Your task to perform on an android device: Empty the shopping cart on amazon.com. Search for "rayovac triple a" on amazon.com, select the first entry, add it to the cart, then select checkout. Image 0: 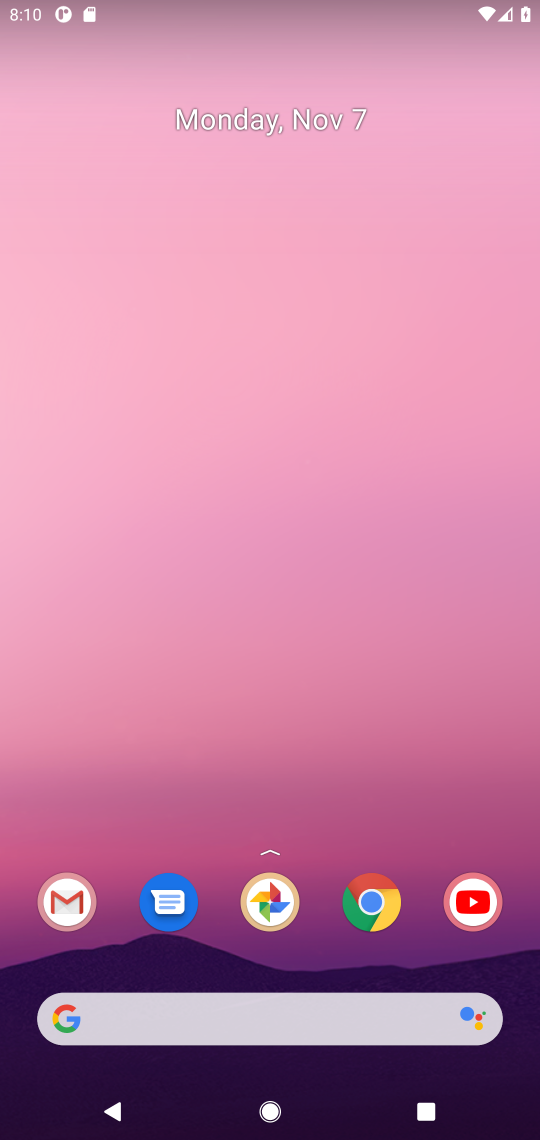
Step 0: click (378, 906)
Your task to perform on an android device: Empty the shopping cart on amazon.com. Search for "rayovac triple a" on amazon.com, select the first entry, add it to the cart, then select checkout. Image 1: 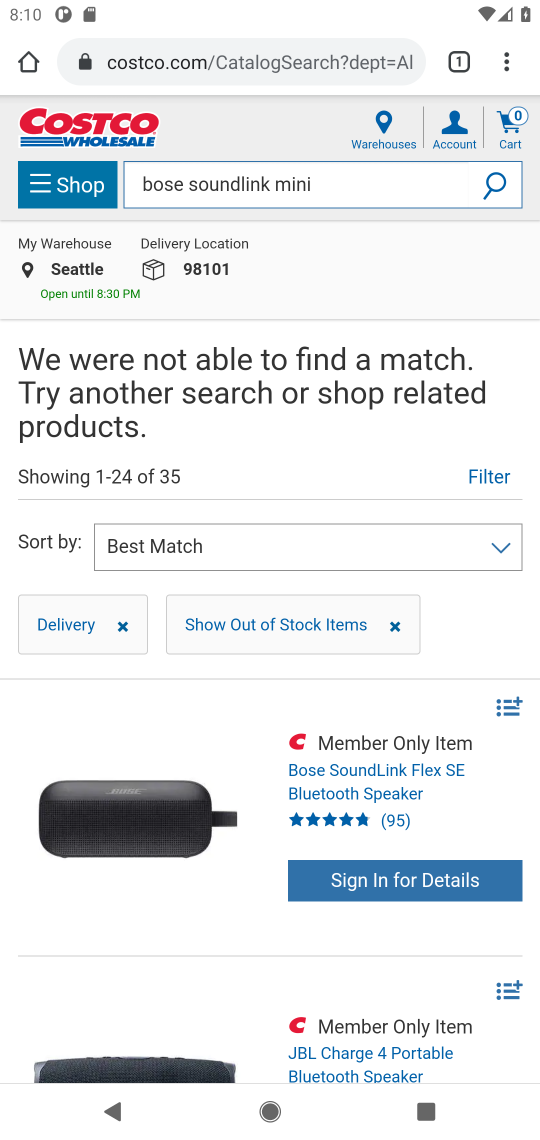
Step 1: click (245, 64)
Your task to perform on an android device: Empty the shopping cart on amazon.com. Search for "rayovac triple a" on amazon.com, select the first entry, add it to the cart, then select checkout. Image 2: 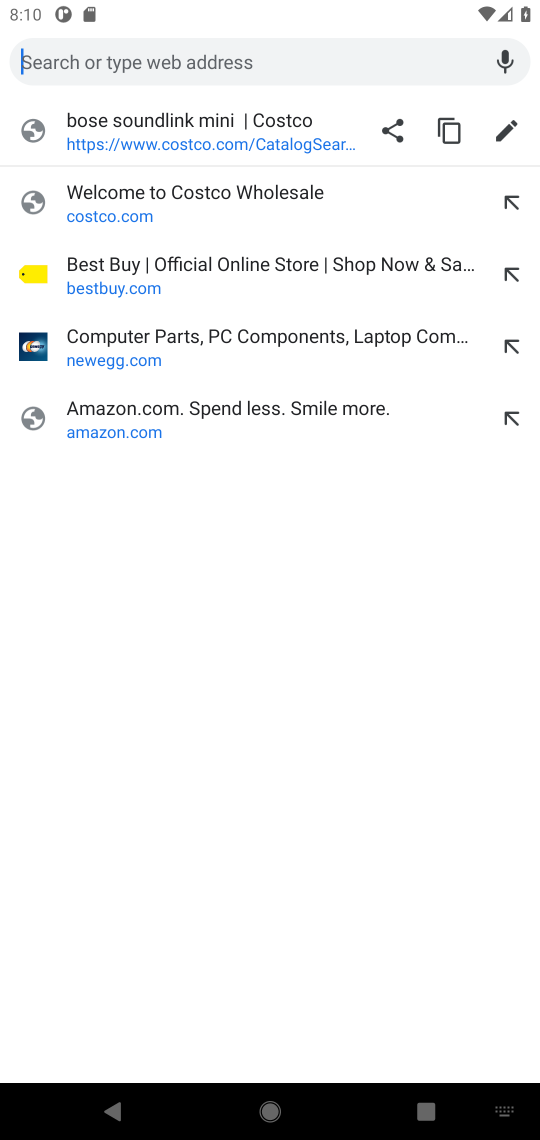
Step 2: click (115, 436)
Your task to perform on an android device: Empty the shopping cart on amazon.com. Search for "rayovac triple a" on amazon.com, select the first entry, add it to the cart, then select checkout. Image 3: 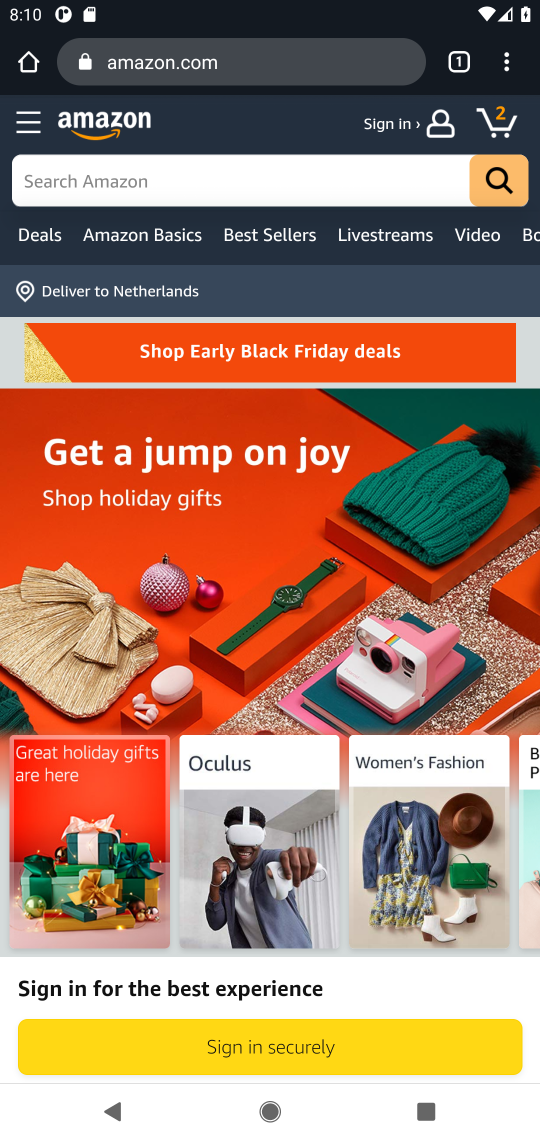
Step 3: click (497, 122)
Your task to perform on an android device: Empty the shopping cart on amazon.com. Search for "rayovac triple a" on amazon.com, select the first entry, add it to the cart, then select checkout. Image 4: 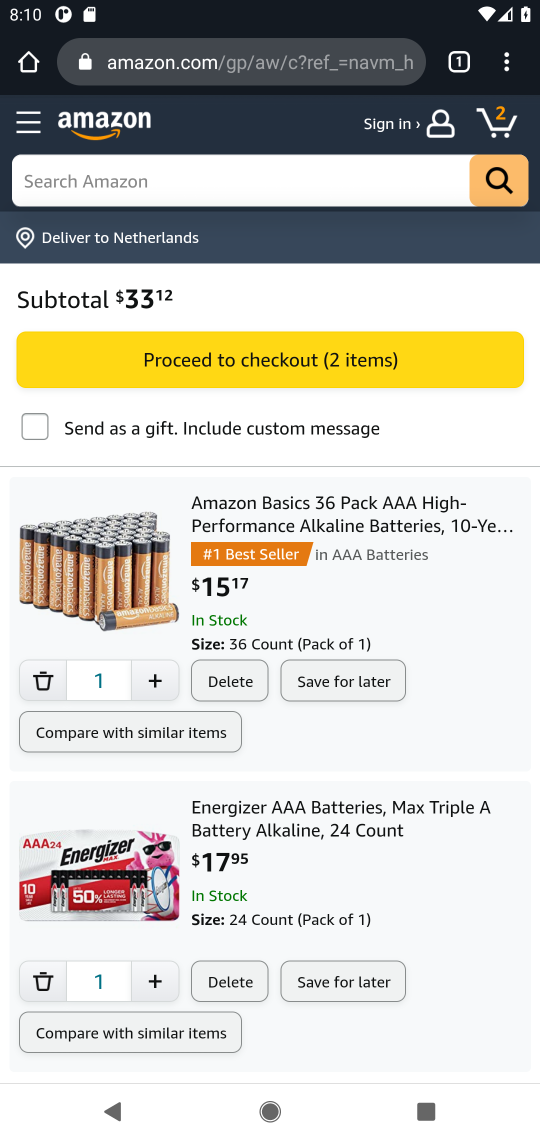
Step 4: click (212, 685)
Your task to perform on an android device: Empty the shopping cart on amazon.com. Search for "rayovac triple a" on amazon.com, select the first entry, add it to the cart, then select checkout. Image 5: 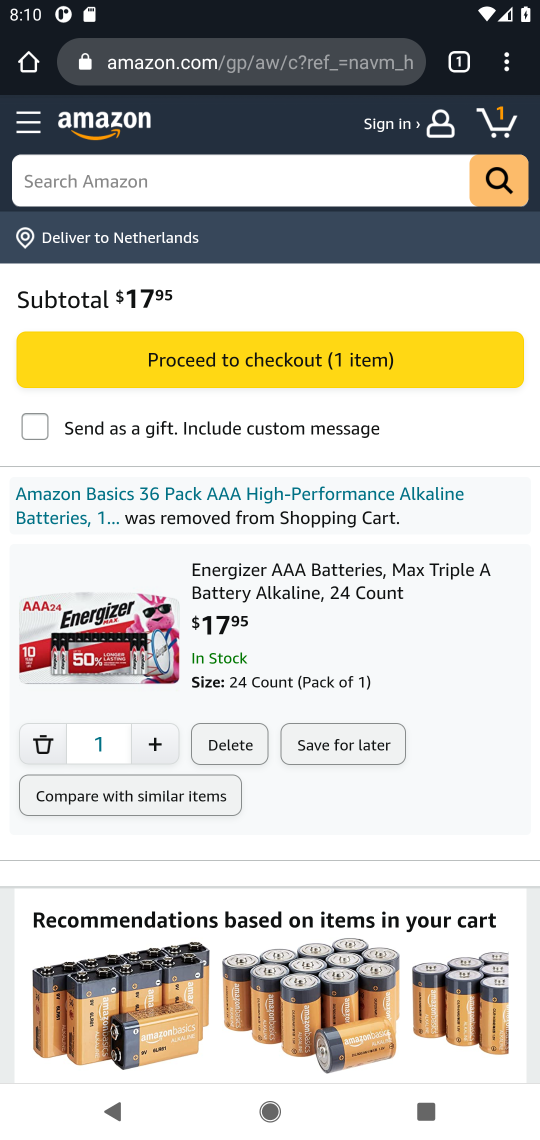
Step 5: click (236, 747)
Your task to perform on an android device: Empty the shopping cart on amazon.com. Search for "rayovac triple a" on amazon.com, select the first entry, add it to the cart, then select checkout. Image 6: 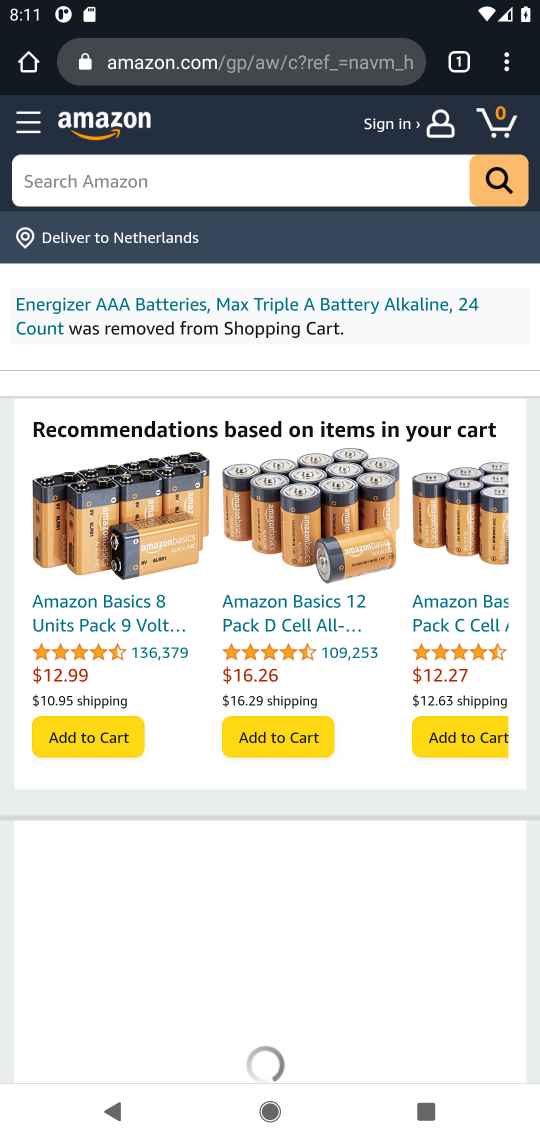
Step 6: click (153, 181)
Your task to perform on an android device: Empty the shopping cart on amazon.com. Search for "rayovac triple a" on amazon.com, select the first entry, add it to the cart, then select checkout. Image 7: 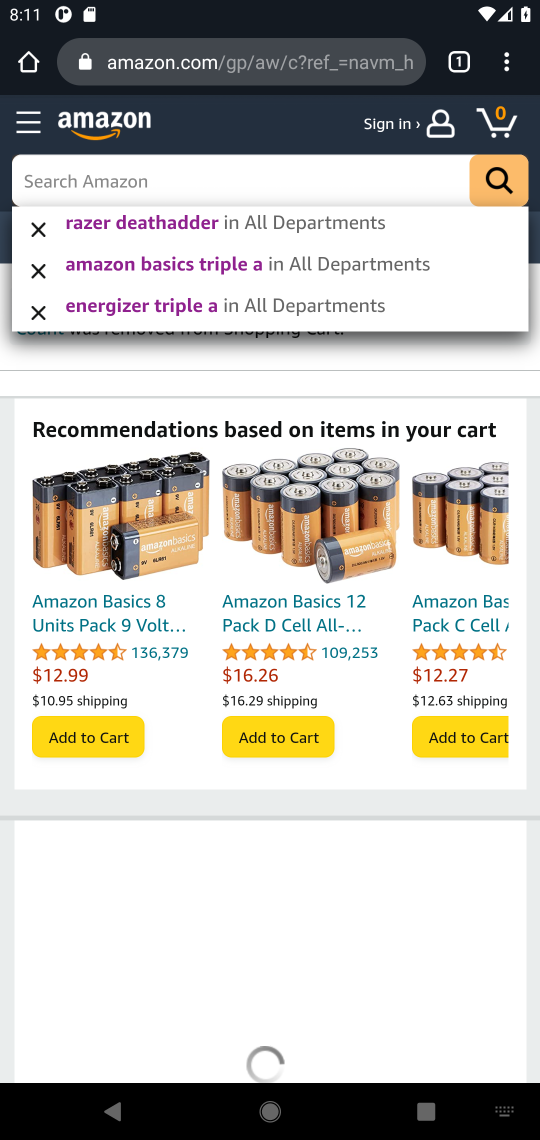
Step 7: type "rayovac triple a"
Your task to perform on an android device: Empty the shopping cart on amazon.com. Search for "rayovac triple a" on amazon.com, select the first entry, add it to the cart, then select checkout. Image 8: 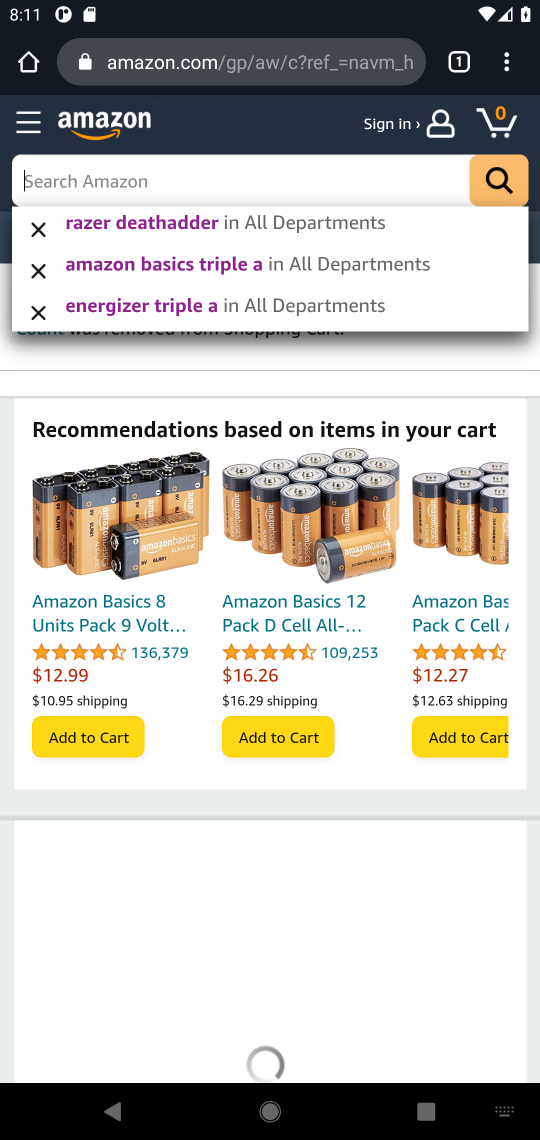
Step 8: click (279, 181)
Your task to perform on an android device: Empty the shopping cart on amazon.com. Search for "rayovac triple a" on amazon.com, select the first entry, add it to the cart, then select checkout. Image 9: 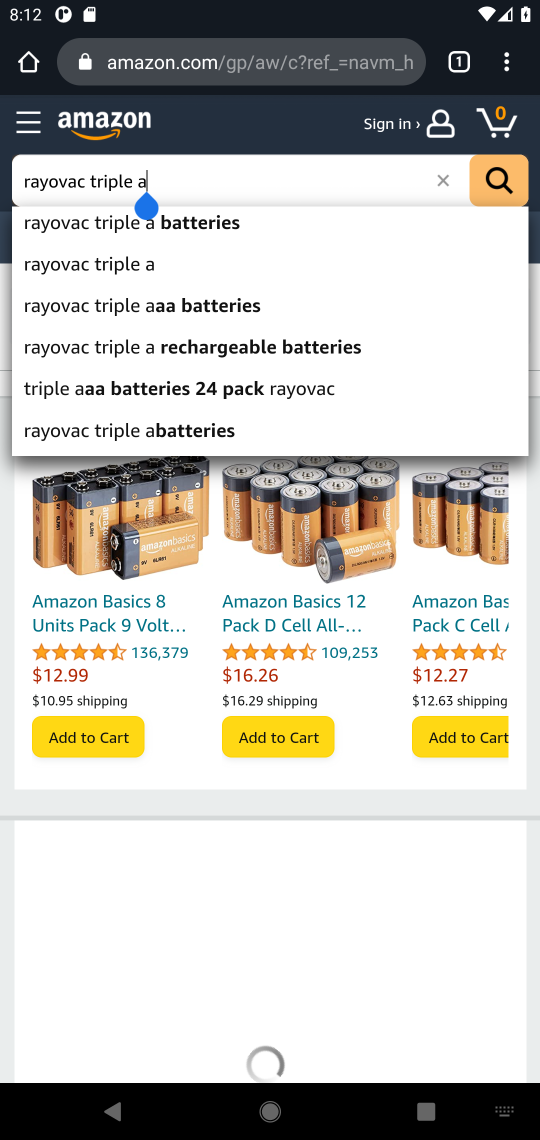
Step 9: type "rayovac triple a"
Your task to perform on an android device: Empty the shopping cart on amazon.com. Search for "rayovac triple a" on amazon.com, select the first entry, add it to the cart, then select checkout. Image 10: 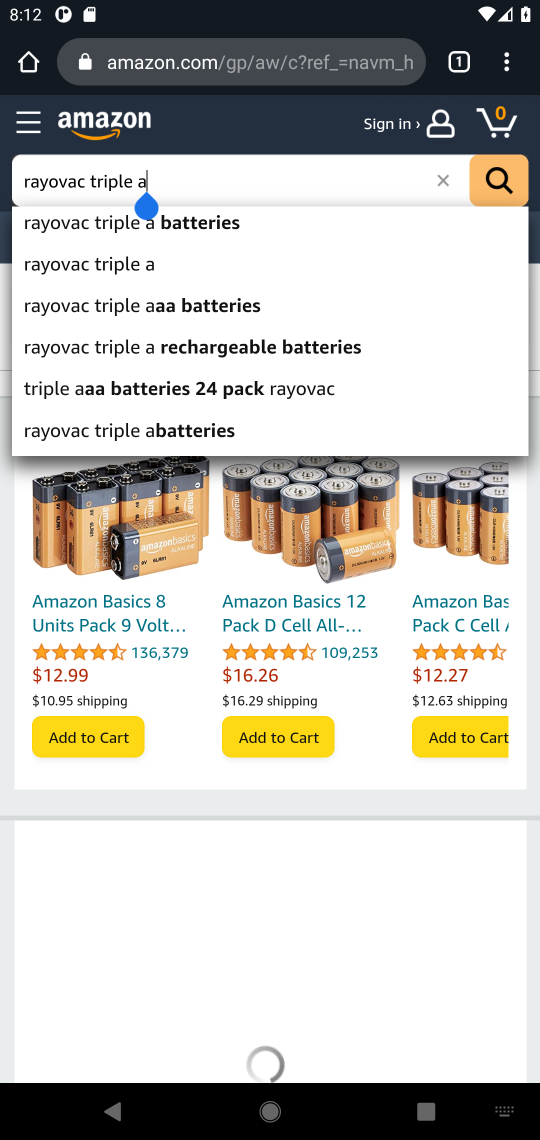
Step 10: click (498, 182)
Your task to perform on an android device: Empty the shopping cart on amazon.com. Search for "rayovac triple a" on amazon.com, select the first entry, add it to the cart, then select checkout. Image 11: 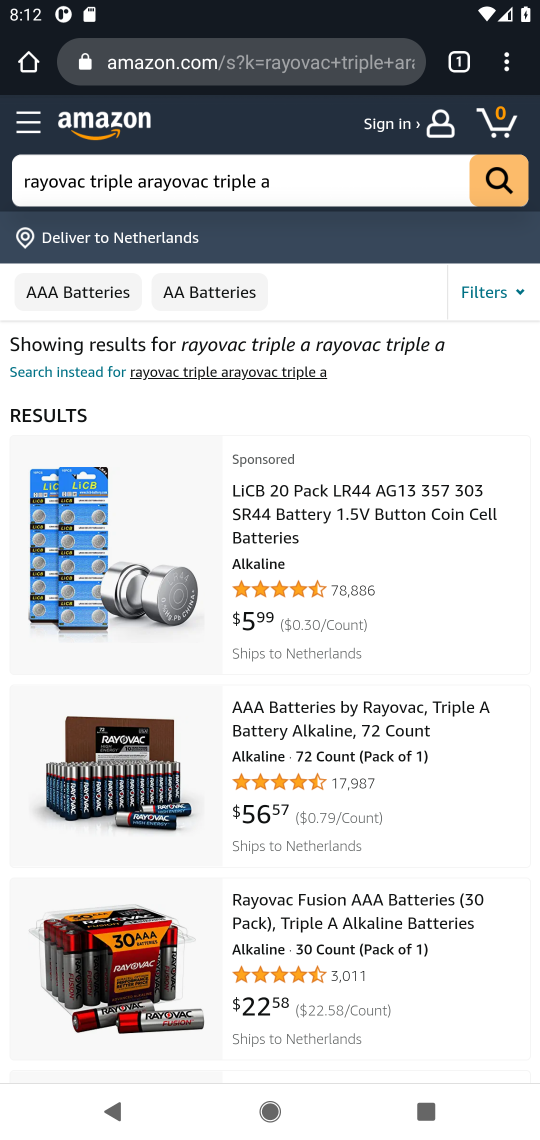
Step 11: click (490, 180)
Your task to perform on an android device: Empty the shopping cart on amazon.com. Search for "rayovac triple a" on amazon.com, select the first entry, add it to the cart, then select checkout. Image 12: 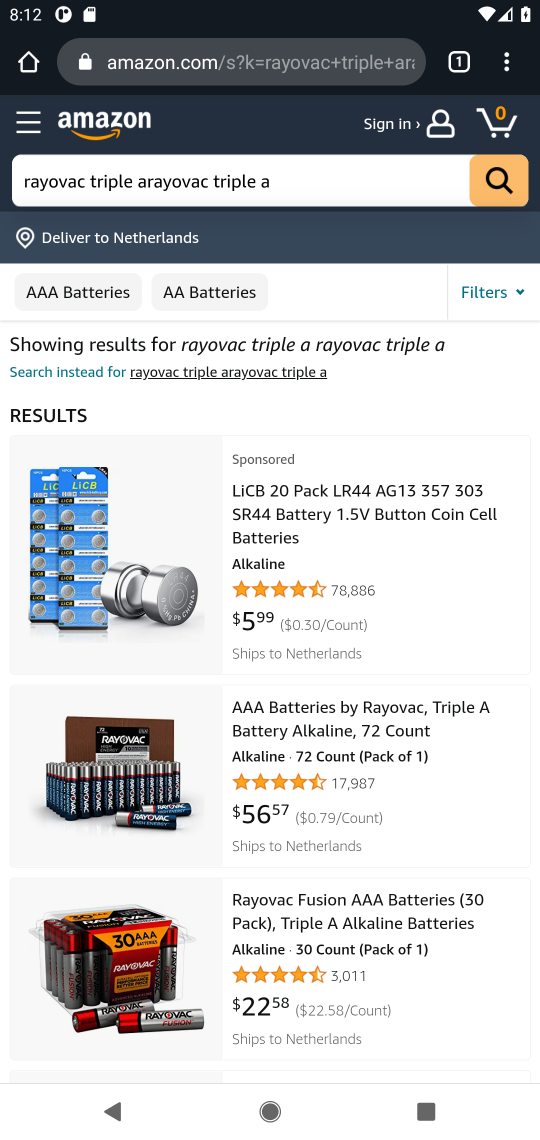
Step 12: click (341, 180)
Your task to perform on an android device: Empty the shopping cart on amazon.com. Search for "rayovac triple a" on amazon.com, select the first entry, add it to the cart, then select checkout. Image 13: 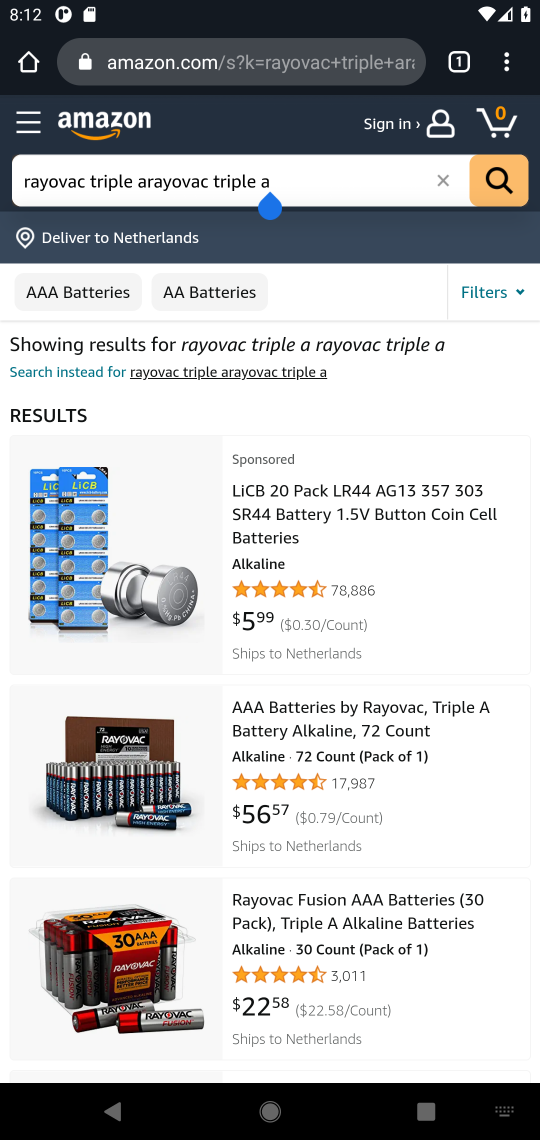
Step 13: click (459, 180)
Your task to perform on an android device: Empty the shopping cart on amazon.com. Search for "rayovac triple a" on amazon.com, select the first entry, add it to the cart, then select checkout. Image 14: 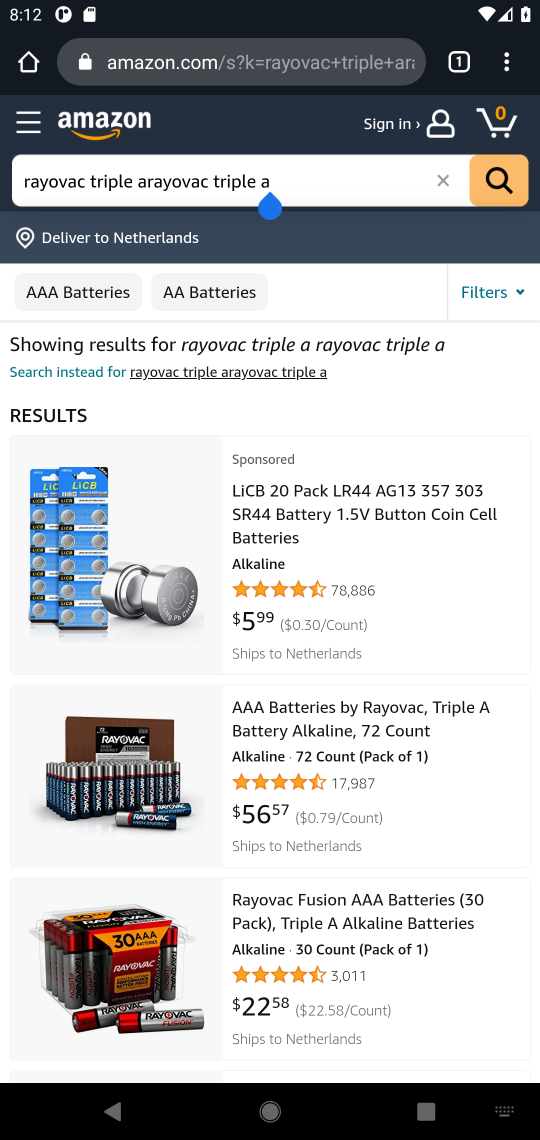
Step 14: click (436, 174)
Your task to perform on an android device: Empty the shopping cart on amazon.com. Search for "rayovac triple a" on amazon.com, select the first entry, add it to the cart, then select checkout. Image 15: 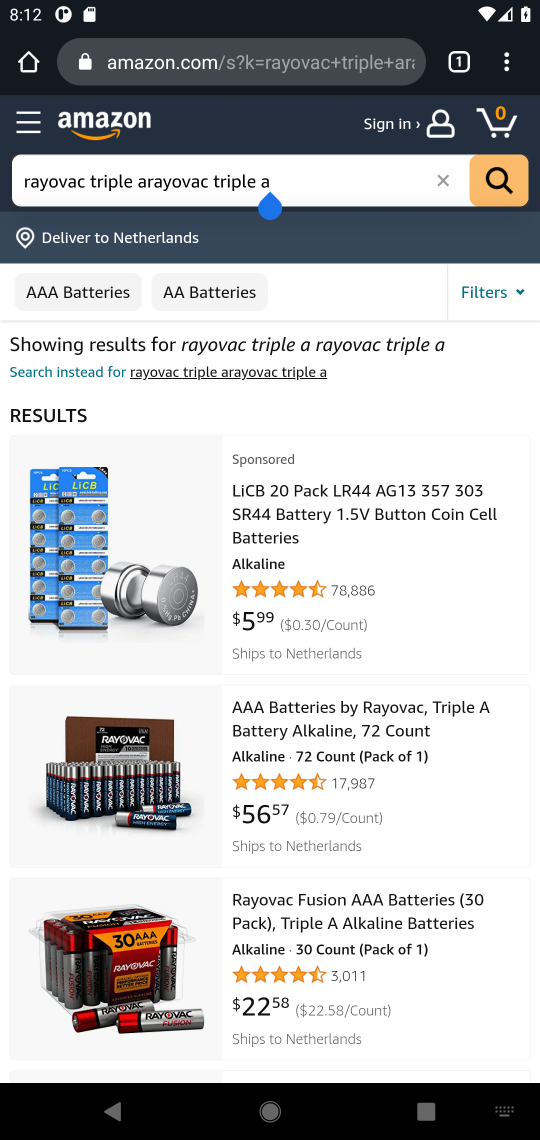
Step 15: click (445, 181)
Your task to perform on an android device: Empty the shopping cart on amazon.com. Search for "rayovac triple a" on amazon.com, select the first entry, add it to the cart, then select checkout. Image 16: 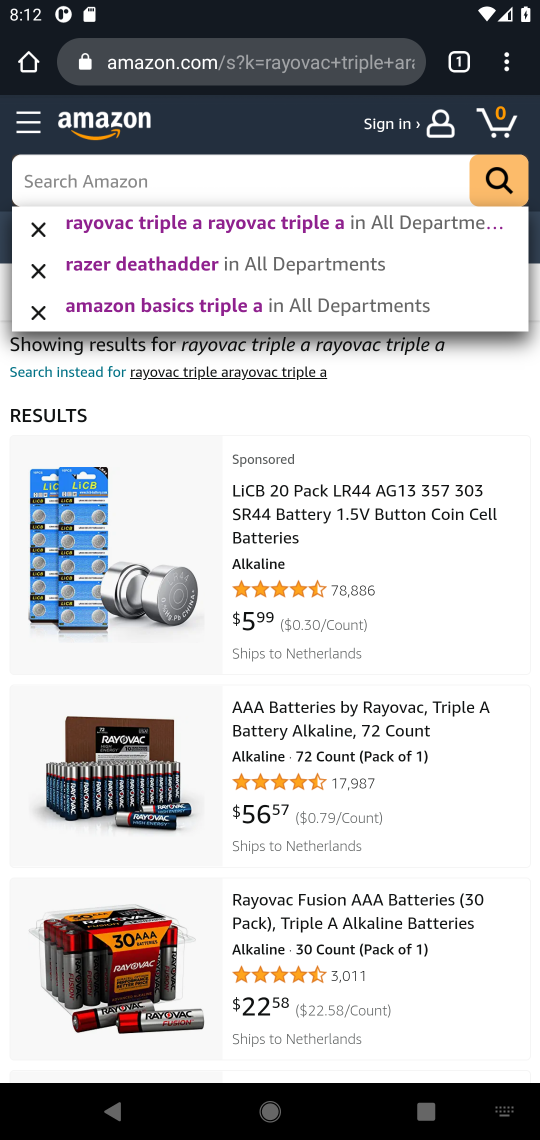
Step 16: type "rayovac triple a"
Your task to perform on an android device: Empty the shopping cart on amazon.com. Search for "rayovac triple a" on amazon.com, select the first entry, add it to the cart, then select checkout. Image 17: 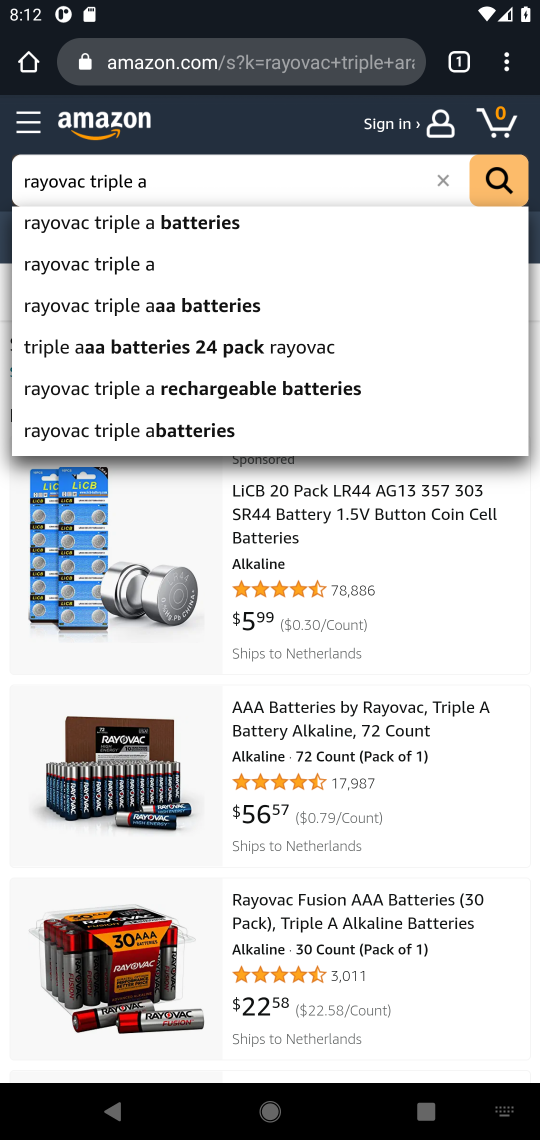
Step 17: click (112, 269)
Your task to perform on an android device: Empty the shopping cart on amazon.com. Search for "rayovac triple a" on amazon.com, select the first entry, add it to the cart, then select checkout. Image 18: 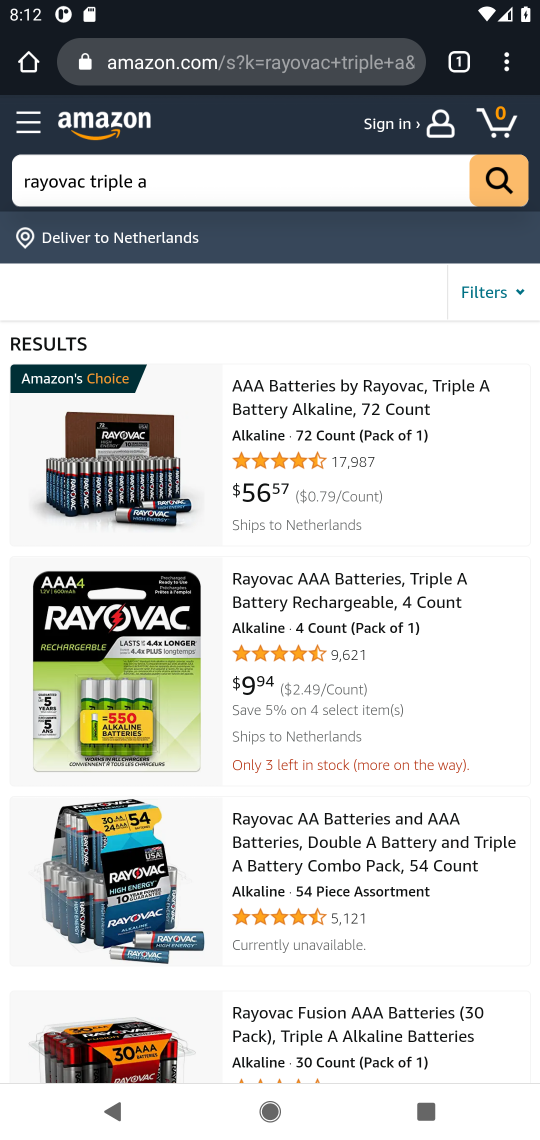
Step 18: task complete